Your task to perform on an android device: Open Yahoo.com Image 0: 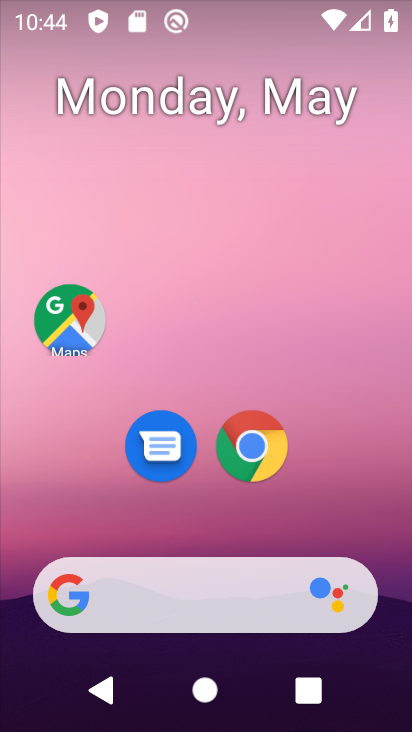
Step 0: click (271, 442)
Your task to perform on an android device: Open Yahoo.com Image 1: 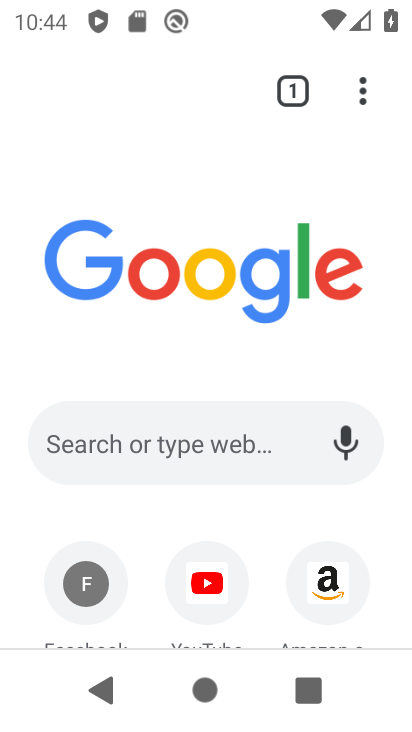
Step 1: drag from (230, 533) to (187, 65)
Your task to perform on an android device: Open Yahoo.com Image 2: 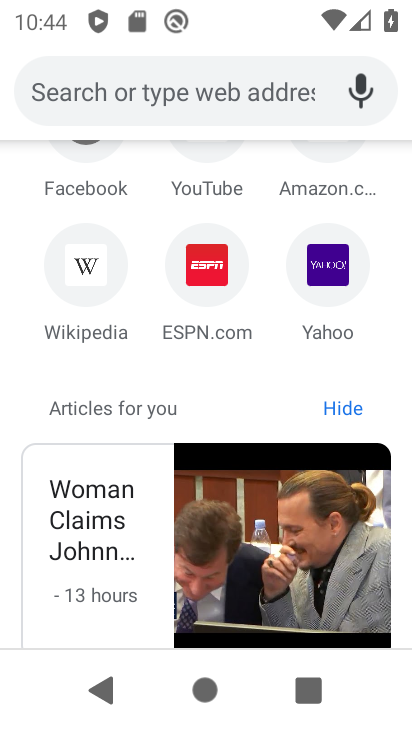
Step 2: click (331, 271)
Your task to perform on an android device: Open Yahoo.com Image 3: 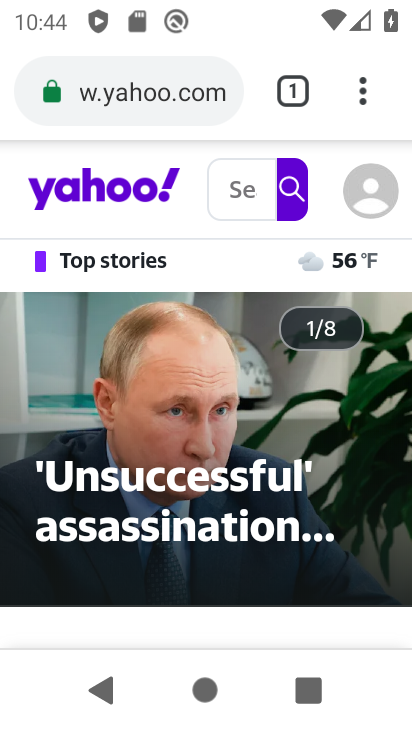
Step 3: task complete